Your task to perform on an android device: Open maps Image 0: 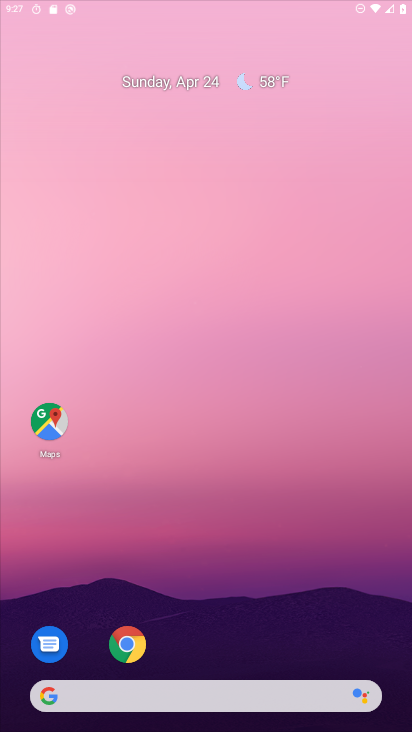
Step 0: drag from (218, 385) to (224, 0)
Your task to perform on an android device: Open maps Image 1: 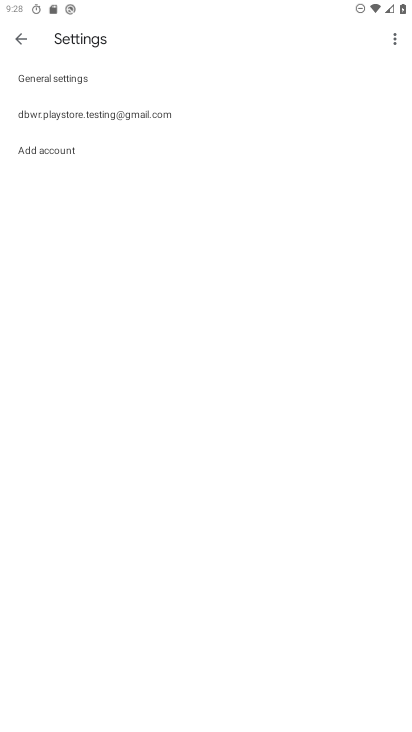
Step 1: press home button
Your task to perform on an android device: Open maps Image 2: 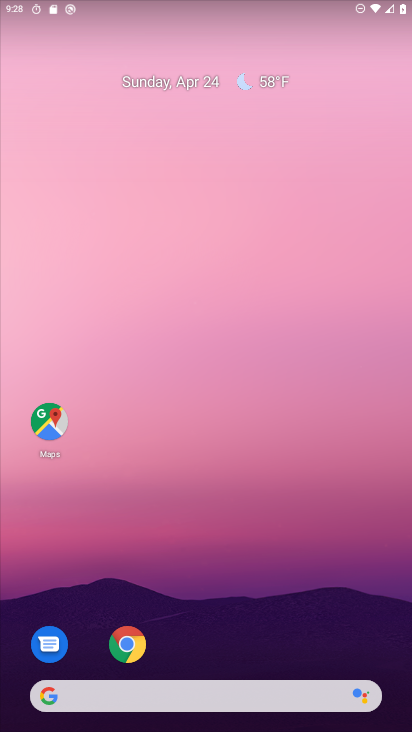
Step 2: click (48, 417)
Your task to perform on an android device: Open maps Image 3: 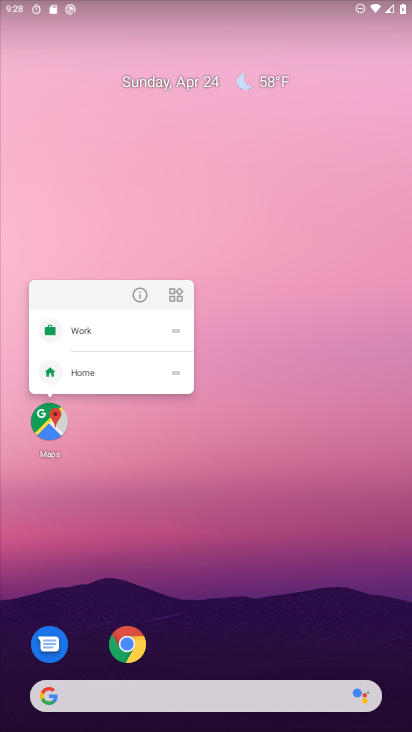
Step 3: click (234, 539)
Your task to perform on an android device: Open maps Image 4: 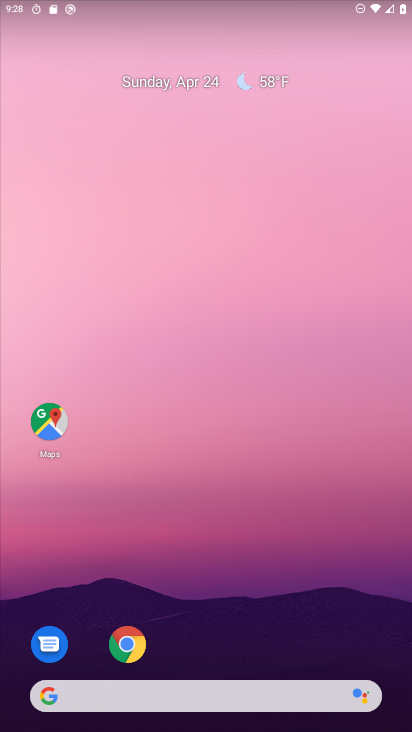
Step 4: drag from (230, 653) to (276, 58)
Your task to perform on an android device: Open maps Image 5: 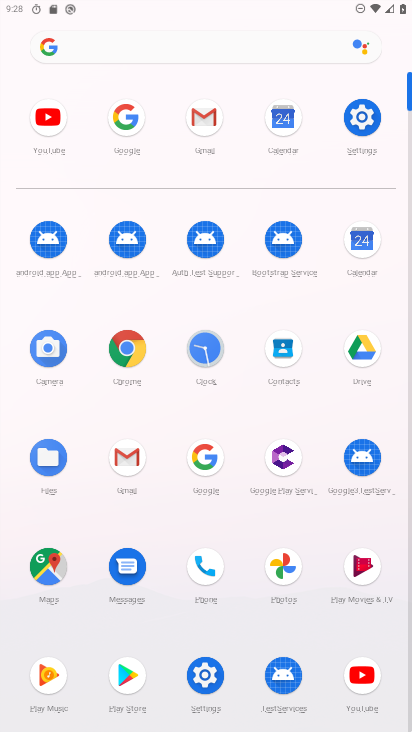
Step 5: click (46, 562)
Your task to perform on an android device: Open maps Image 6: 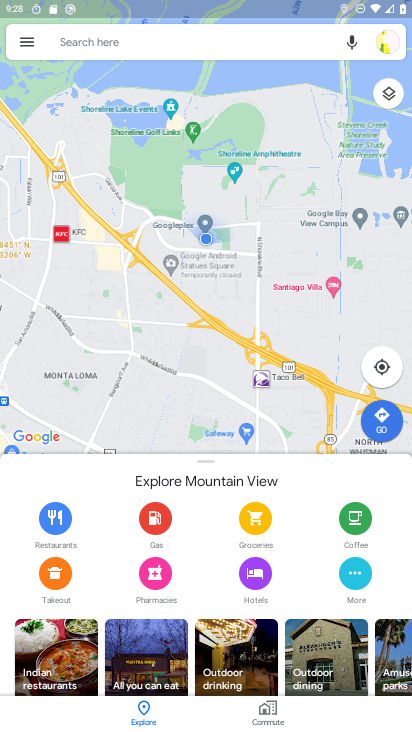
Step 6: drag from (212, 550) to (213, 44)
Your task to perform on an android device: Open maps Image 7: 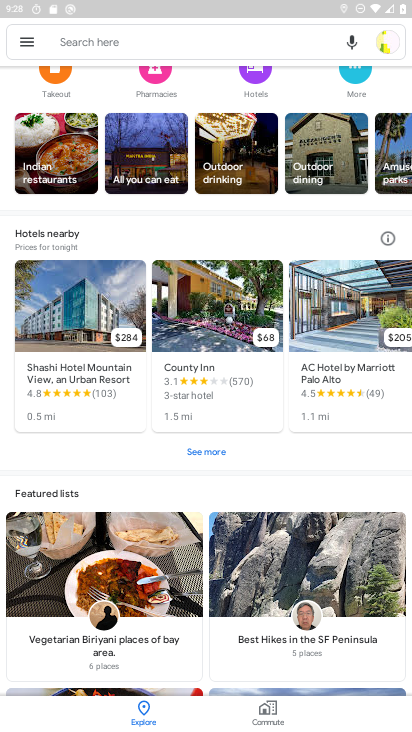
Step 7: click (211, 392)
Your task to perform on an android device: Open maps Image 8: 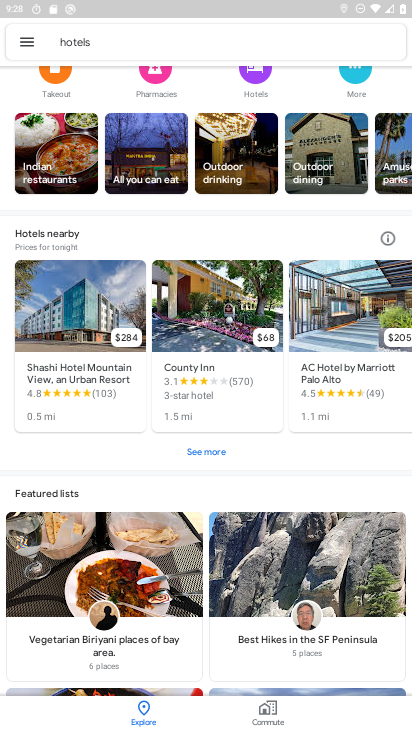
Step 8: task complete